Your task to perform on an android device: check android version Image 0: 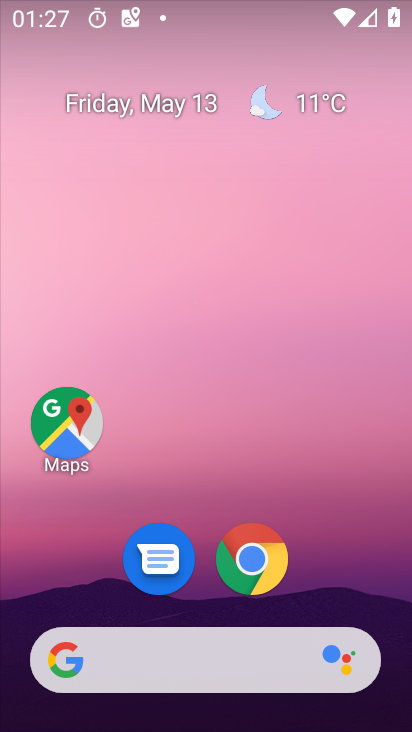
Step 0: drag from (334, 558) to (336, 102)
Your task to perform on an android device: check android version Image 1: 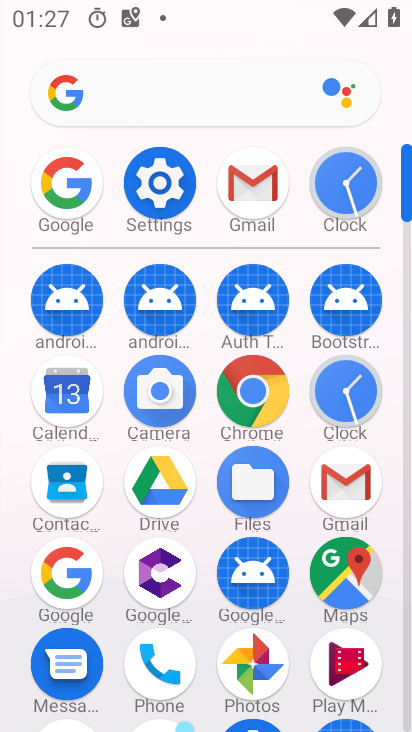
Step 1: click (60, 578)
Your task to perform on an android device: check android version Image 2: 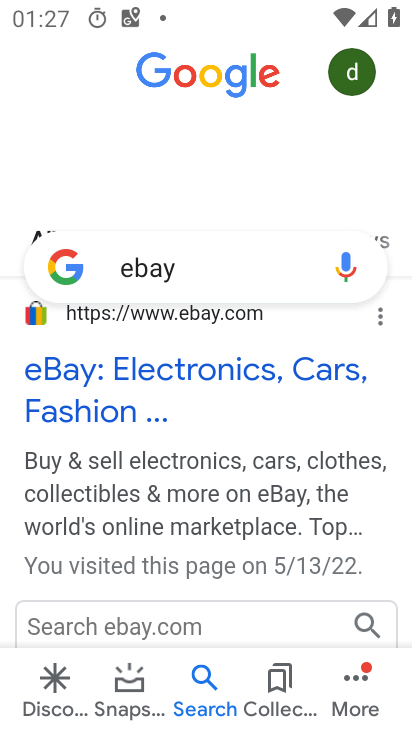
Step 2: click (346, 70)
Your task to perform on an android device: check android version Image 3: 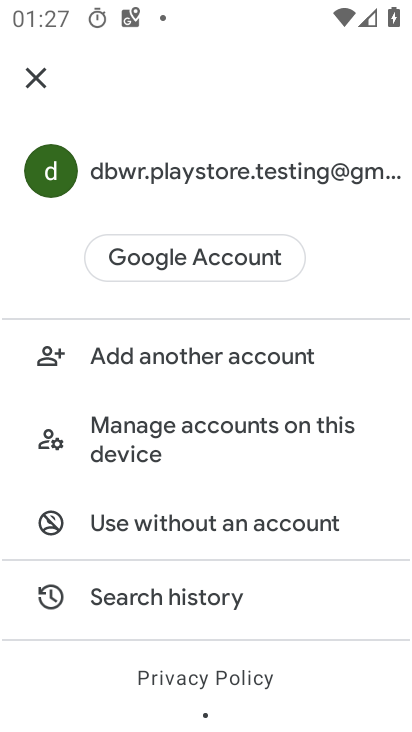
Step 3: drag from (231, 577) to (262, 119)
Your task to perform on an android device: check android version Image 4: 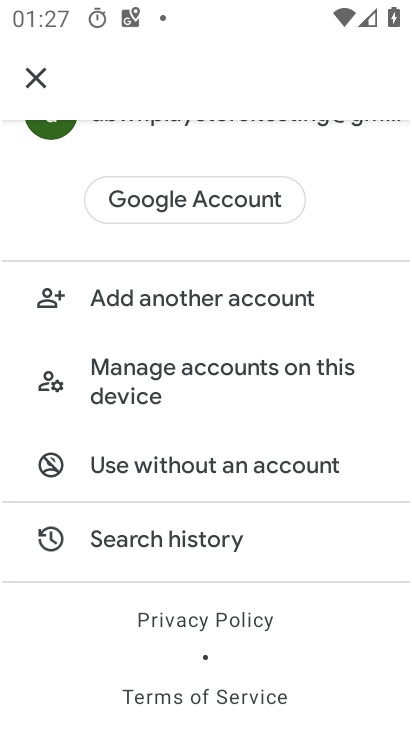
Step 4: drag from (172, 273) to (203, 507)
Your task to perform on an android device: check android version Image 5: 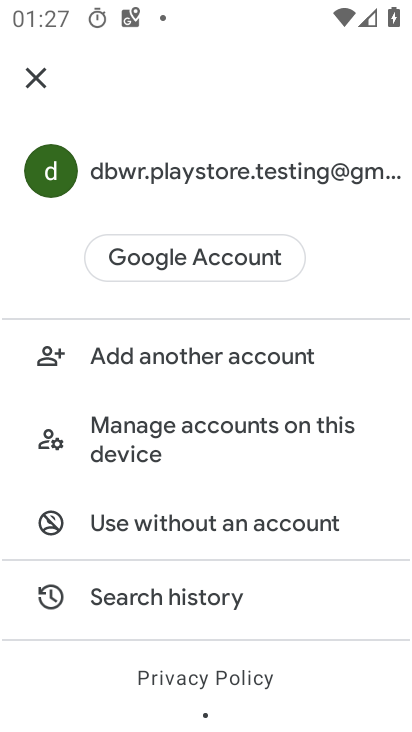
Step 5: press back button
Your task to perform on an android device: check android version Image 6: 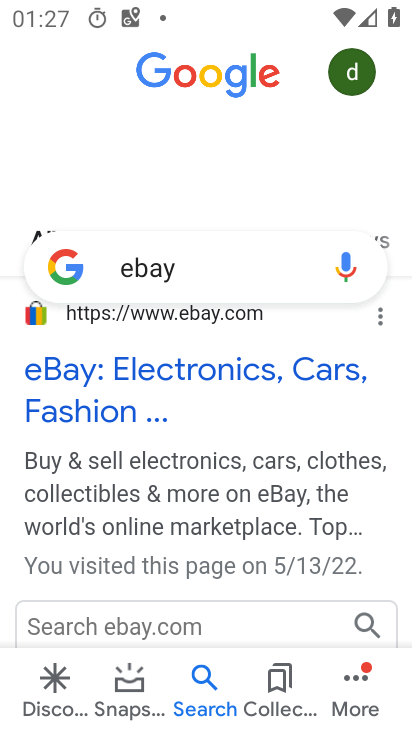
Step 6: click (358, 703)
Your task to perform on an android device: check android version Image 7: 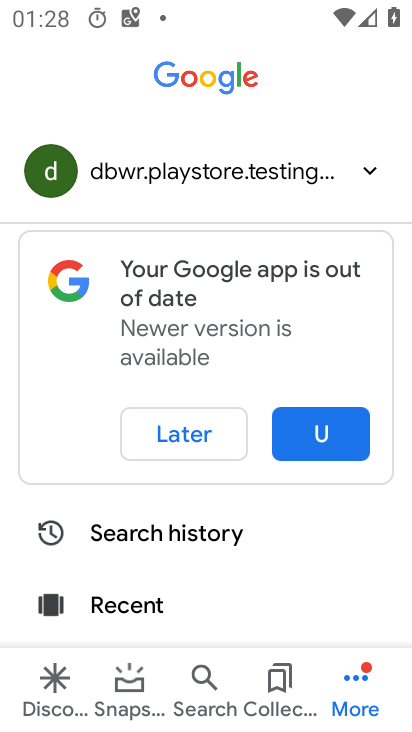
Step 7: task complete